Your task to perform on an android device: change notification settings in the gmail app Image 0: 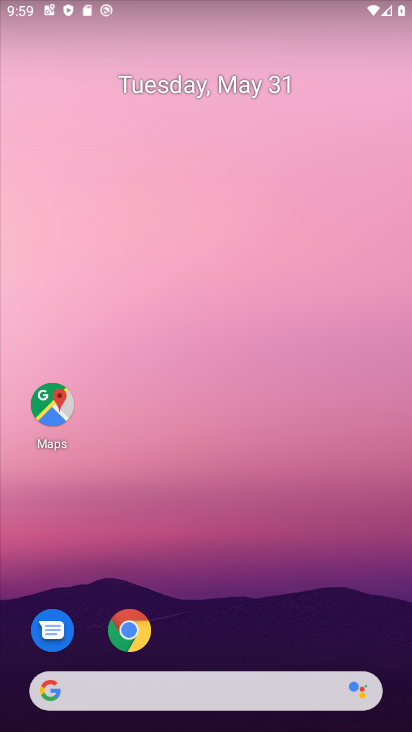
Step 0: drag from (190, 689) to (254, 246)
Your task to perform on an android device: change notification settings in the gmail app Image 1: 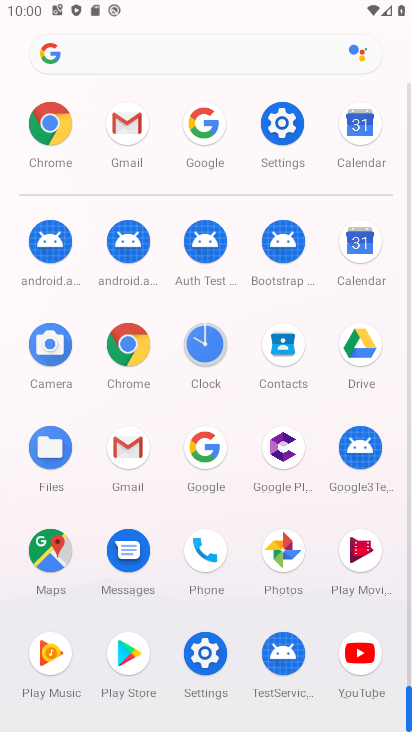
Step 1: click (136, 461)
Your task to perform on an android device: change notification settings in the gmail app Image 2: 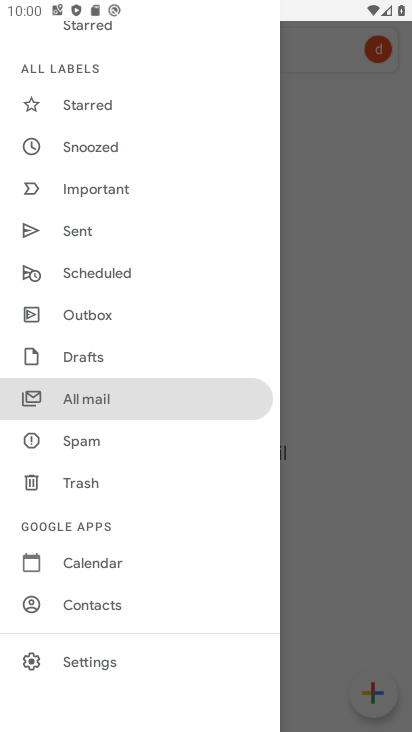
Step 2: click (73, 657)
Your task to perform on an android device: change notification settings in the gmail app Image 3: 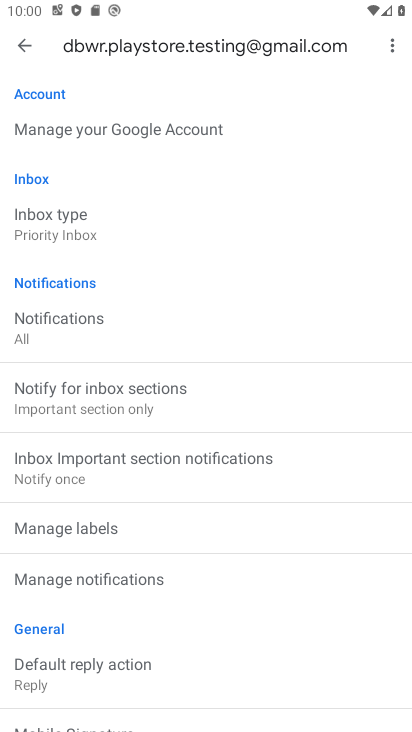
Step 3: click (22, 48)
Your task to perform on an android device: change notification settings in the gmail app Image 4: 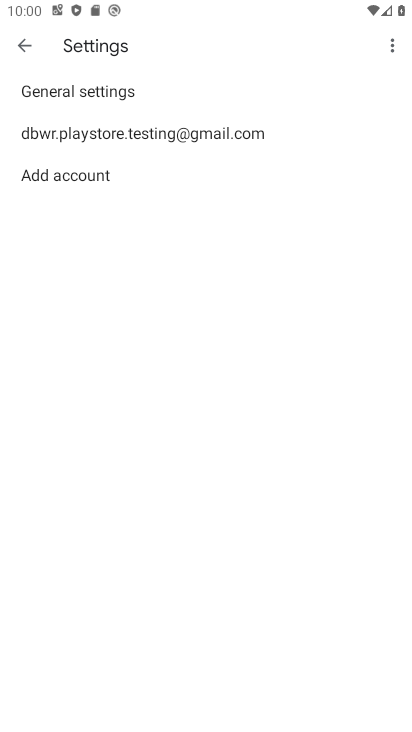
Step 4: click (110, 98)
Your task to perform on an android device: change notification settings in the gmail app Image 5: 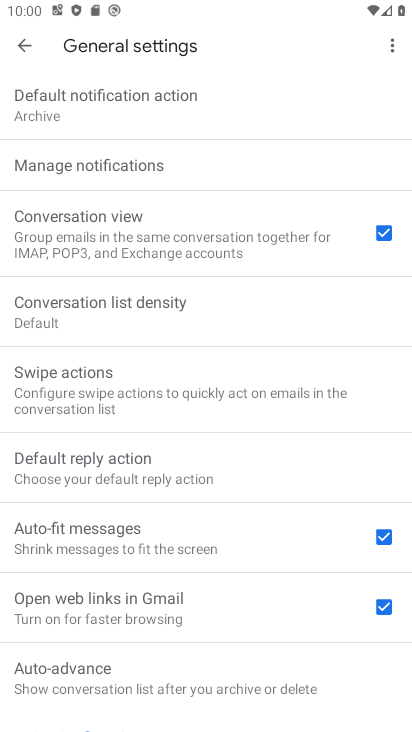
Step 5: click (107, 164)
Your task to perform on an android device: change notification settings in the gmail app Image 6: 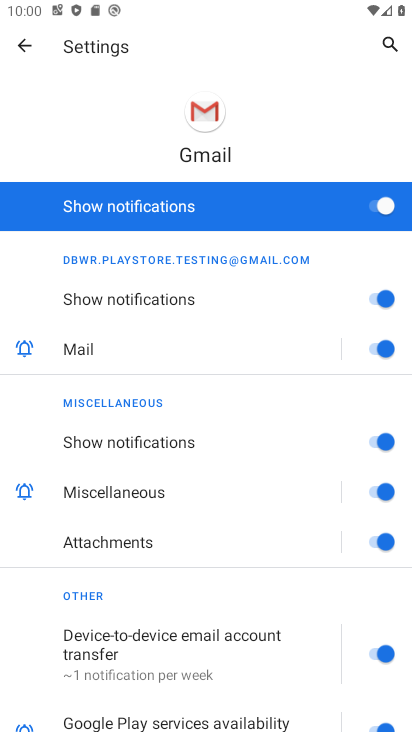
Step 6: click (379, 209)
Your task to perform on an android device: change notification settings in the gmail app Image 7: 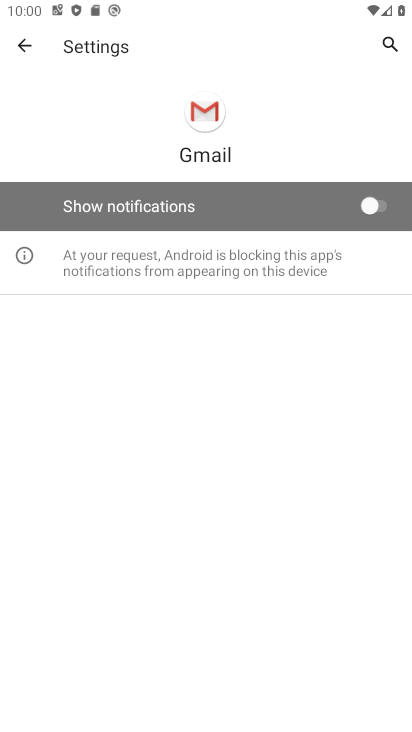
Step 7: task complete